Your task to perform on an android device: toggle priority inbox in the gmail app Image 0: 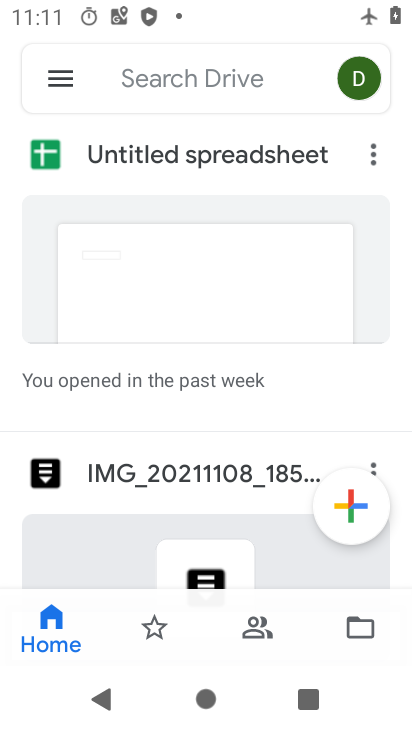
Step 0: press home button
Your task to perform on an android device: toggle priority inbox in the gmail app Image 1: 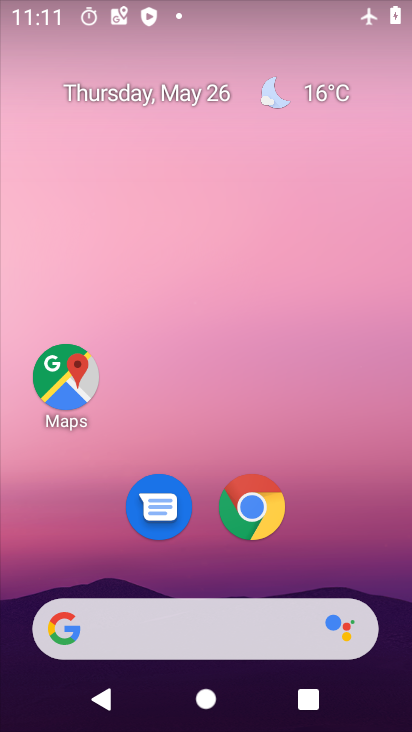
Step 1: drag from (189, 615) to (267, 160)
Your task to perform on an android device: toggle priority inbox in the gmail app Image 2: 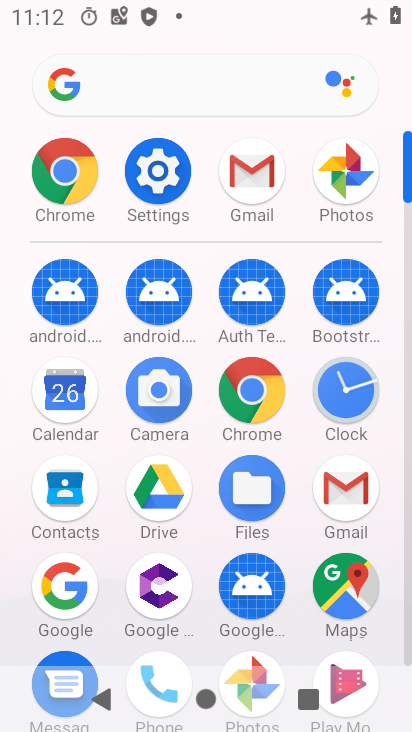
Step 2: click (342, 496)
Your task to perform on an android device: toggle priority inbox in the gmail app Image 3: 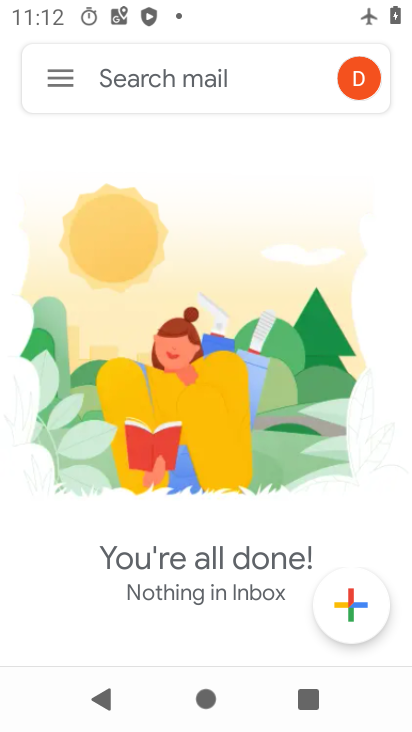
Step 3: click (76, 86)
Your task to perform on an android device: toggle priority inbox in the gmail app Image 4: 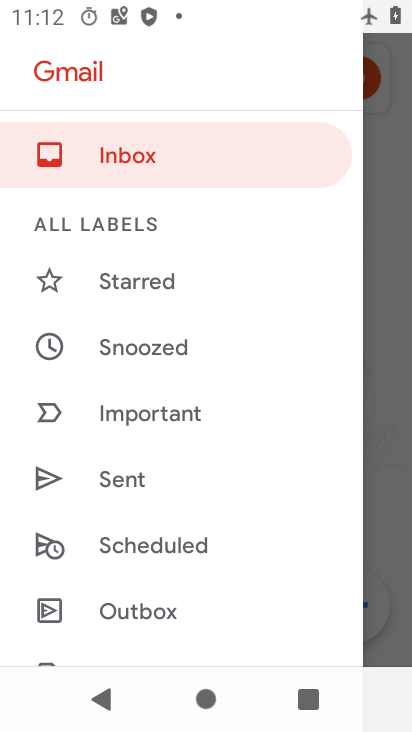
Step 4: drag from (163, 582) to (162, 274)
Your task to perform on an android device: toggle priority inbox in the gmail app Image 5: 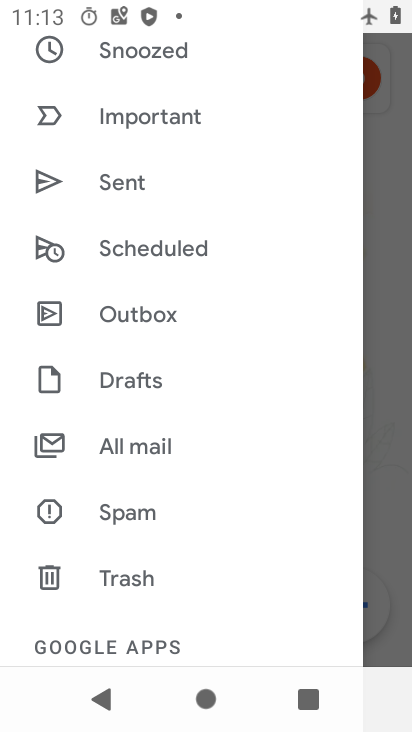
Step 5: drag from (158, 608) to (161, 357)
Your task to perform on an android device: toggle priority inbox in the gmail app Image 6: 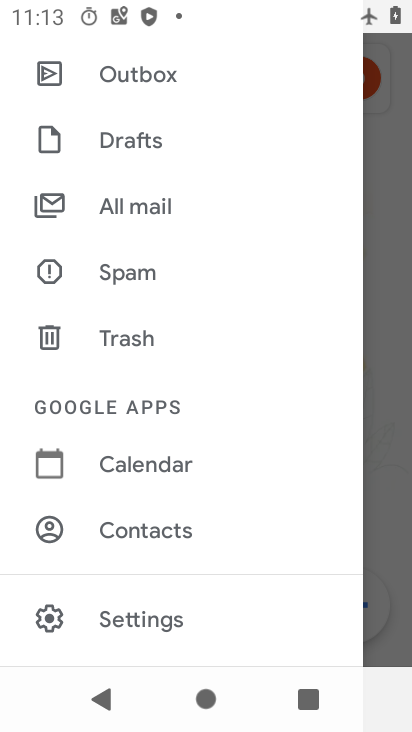
Step 6: click (156, 626)
Your task to perform on an android device: toggle priority inbox in the gmail app Image 7: 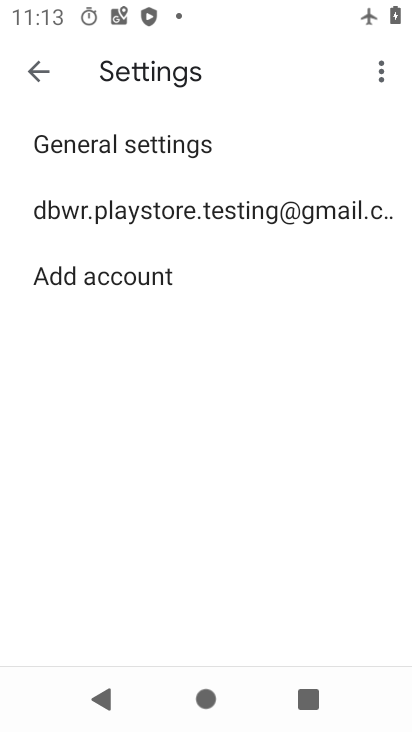
Step 7: click (136, 212)
Your task to perform on an android device: toggle priority inbox in the gmail app Image 8: 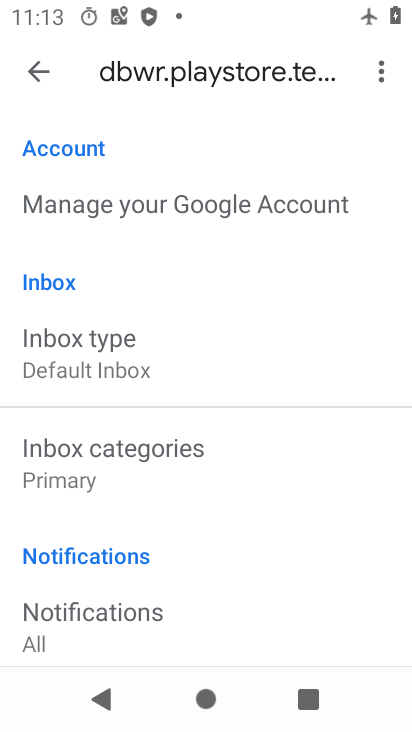
Step 8: click (91, 368)
Your task to perform on an android device: toggle priority inbox in the gmail app Image 9: 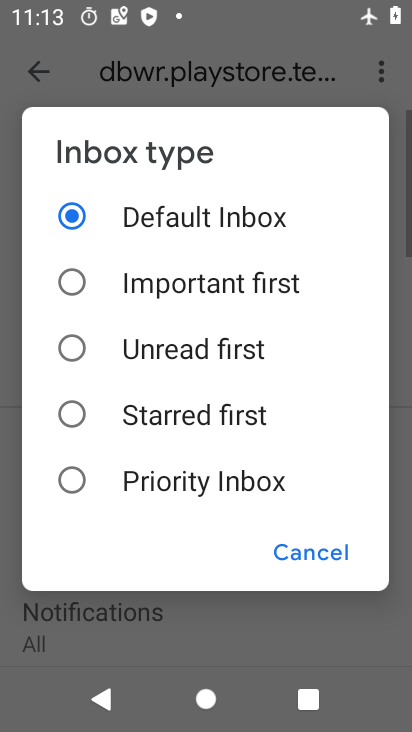
Step 9: click (140, 487)
Your task to perform on an android device: toggle priority inbox in the gmail app Image 10: 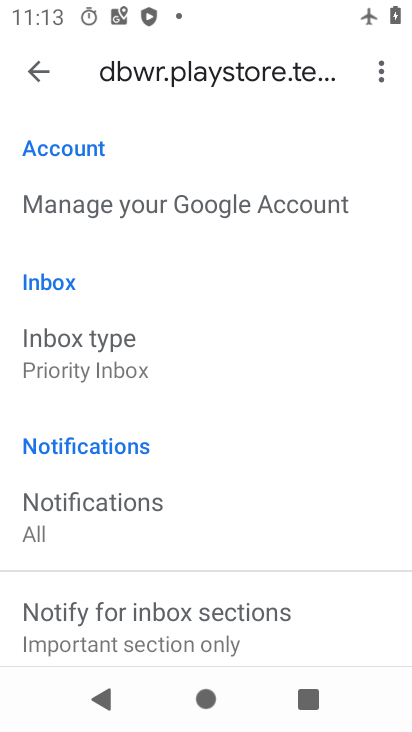
Step 10: task complete